Your task to perform on an android device: turn on airplane mode Image 0: 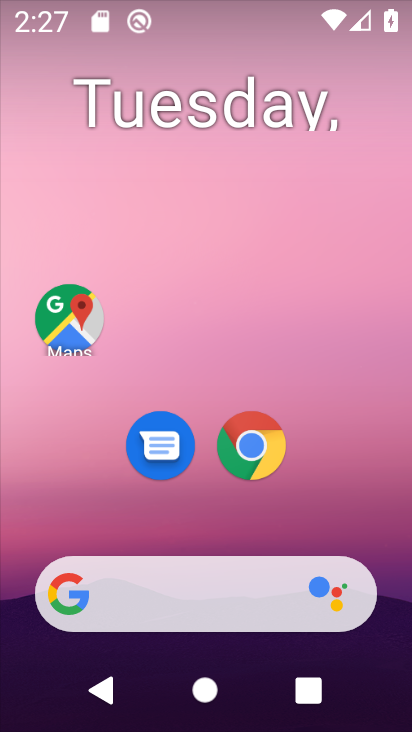
Step 0: drag from (329, 507) to (225, 135)
Your task to perform on an android device: turn on airplane mode Image 1: 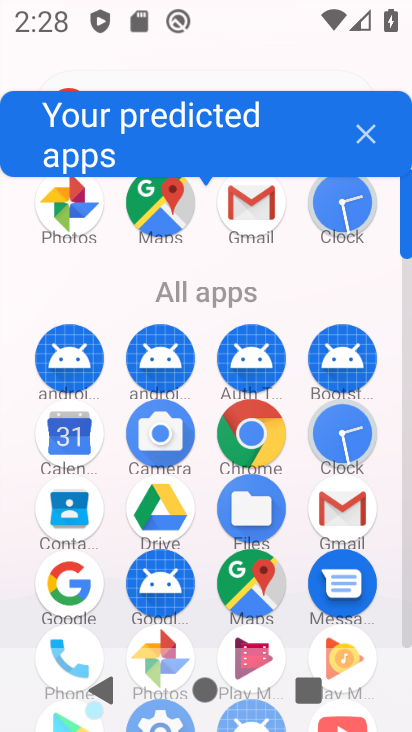
Step 1: drag from (408, 241) to (361, 397)
Your task to perform on an android device: turn on airplane mode Image 2: 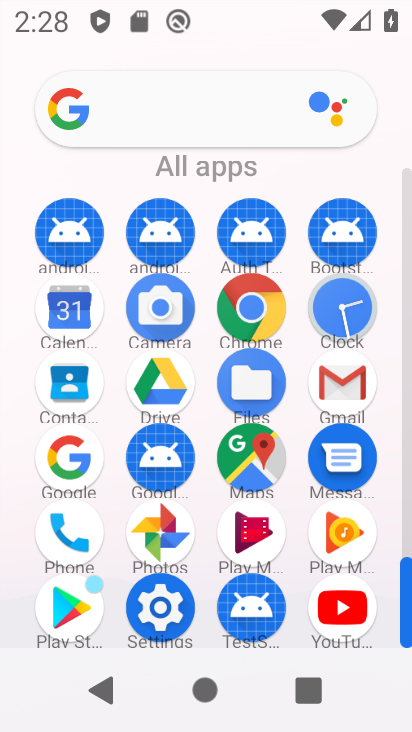
Step 2: click (168, 607)
Your task to perform on an android device: turn on airplane mode Image 3: 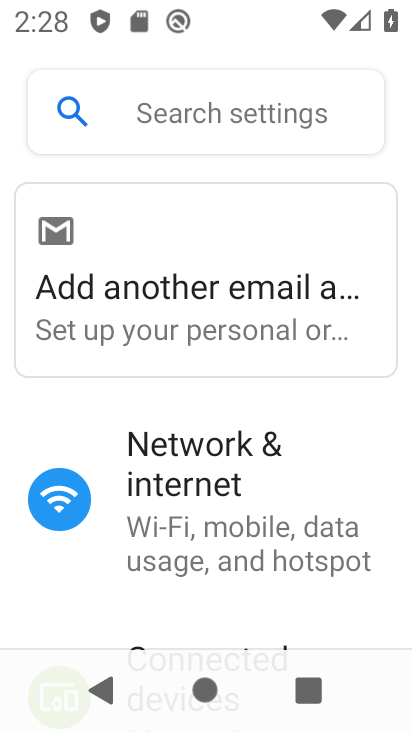
Step 3: click (216, 530)
Your task to perform on an android device: turn on airplane mode Image 4: 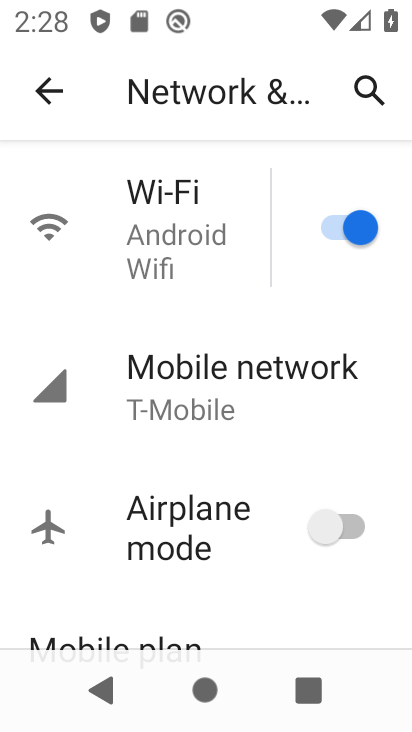
Step 4: click (332, 533)
Your task to perform on an android device: turn on airplane mode Image 5: 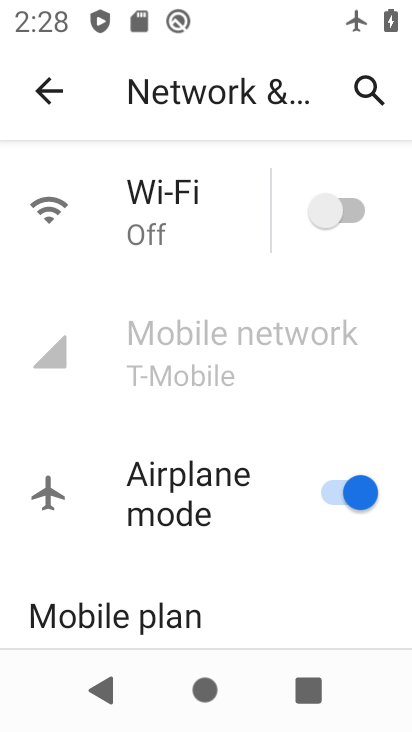
Step 5: task complete